Your task to perform on an android device: create a new album in the google photos Image 0: 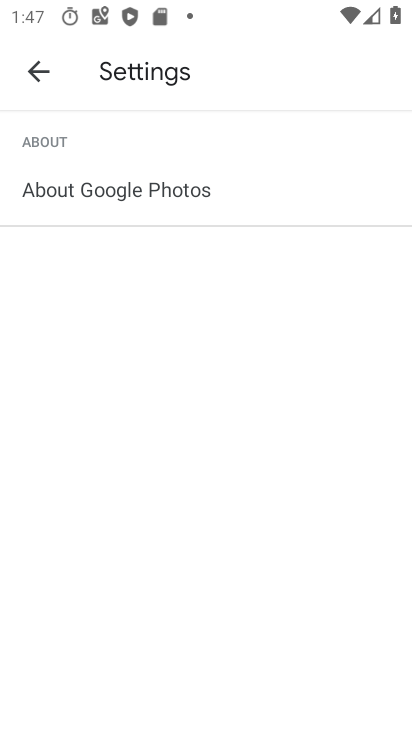
Step 0: click (38, 71)
Your task to perform on an android device: create a new album in the google photos Image 1: 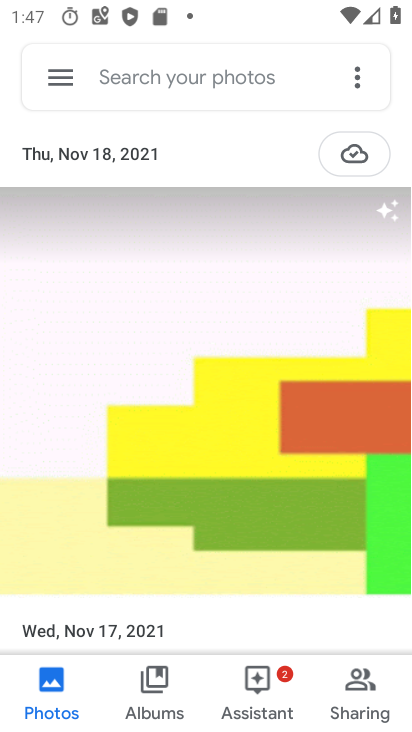
Step 1: click (163, 151)
Your task to perform on an android device: create a new album in the google photos Image 2: 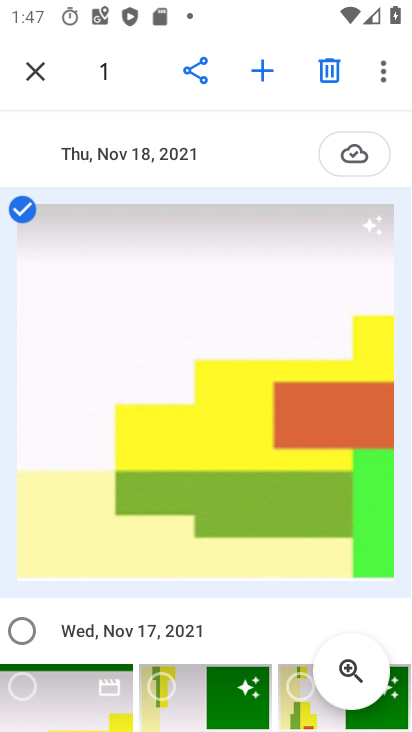
Step 2: click (267, 76)
Your task to perform on an android device: create a new album in the google photos Image 3: 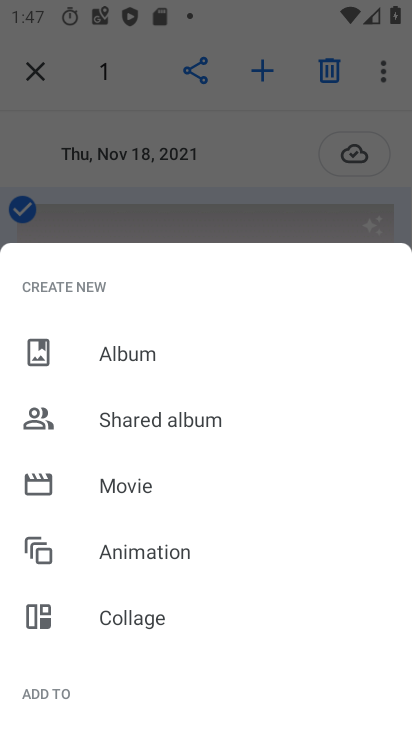
Step 3: type "juhgf"
Your task to perform on an android device: create a new album in the google photos Image 4: 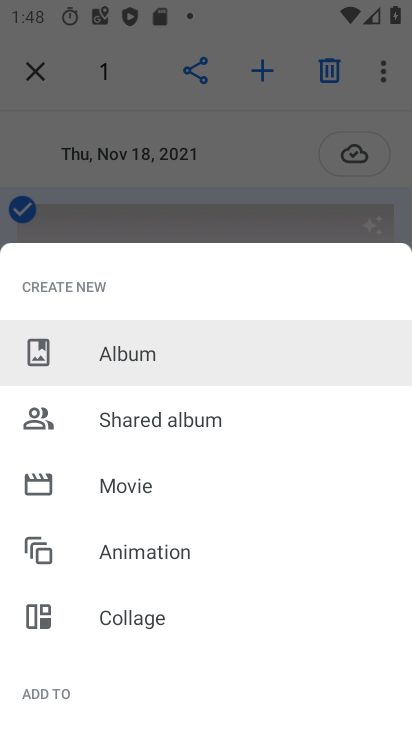
Step 4: click (106, 353)
Your task to perform on an android device: create a new album in the google photos Image 5: 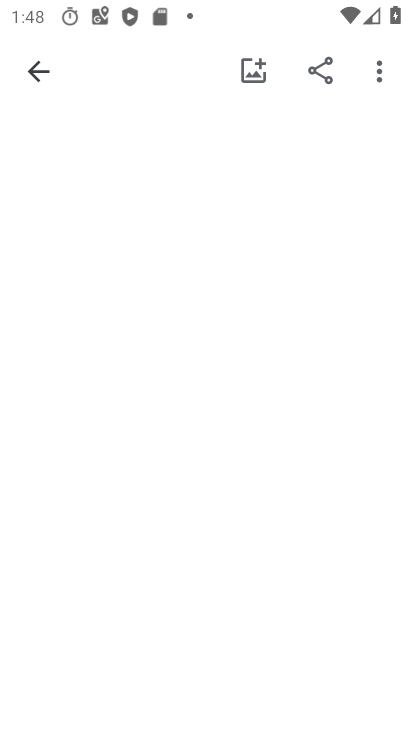
Step 5: click (106, 353)
Your task to perform on an android device: create a new album in the google photos Image 6: 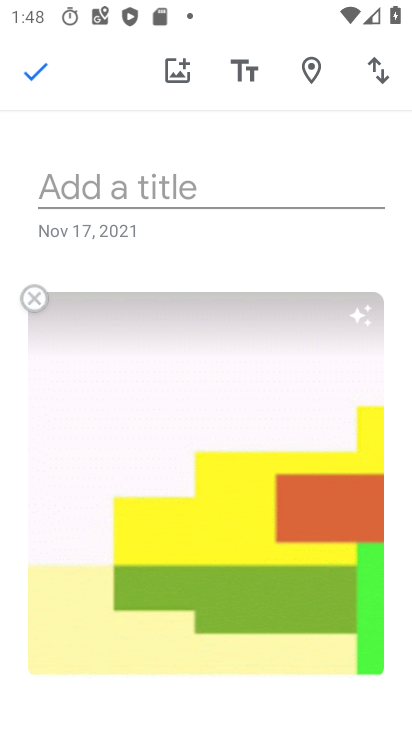
Step 6: click (124, 179)
Your task to perform on an android device: create a new album in the google photos Image 7: 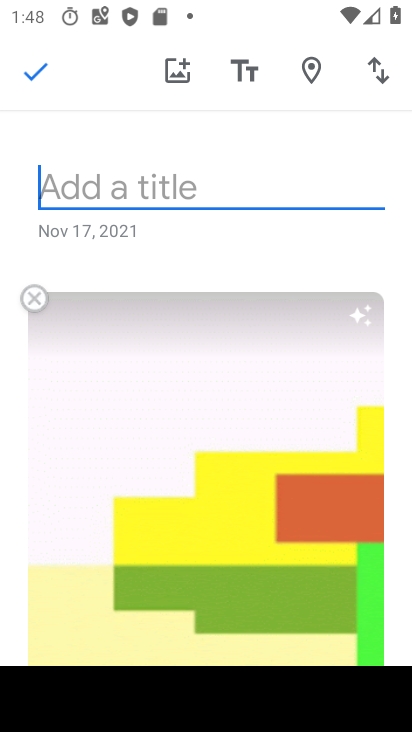
Step 7: type "kjhgvb"
Your task to perform on an android device: create a new album in the google photos Image 8: 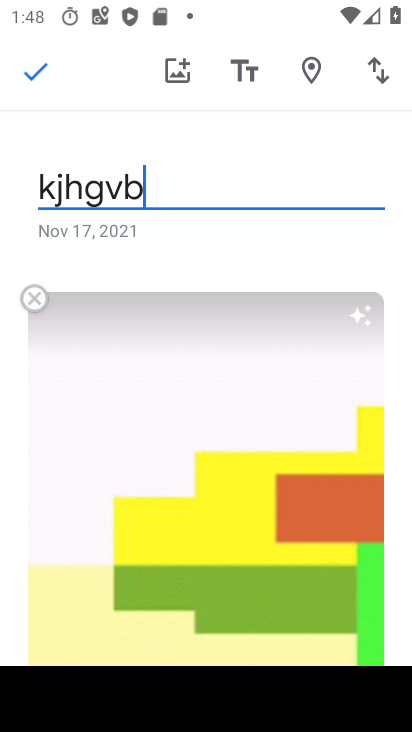
Step 8: click (22, 84)
Your task to perform on an android device: create a new album in the google photos Image 9: 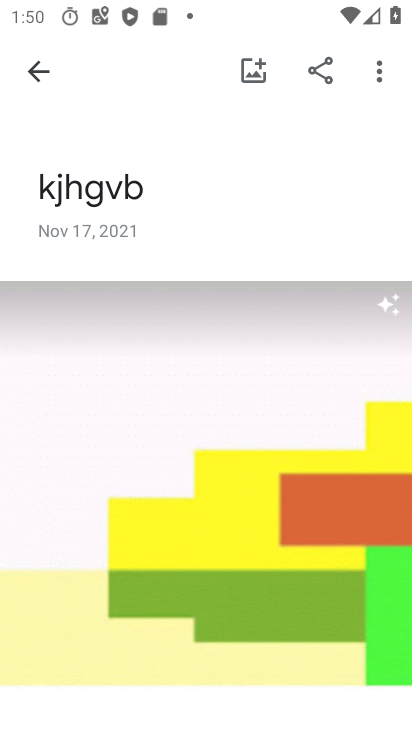
Step 9: task complete